Your task to perform on an android device: Open Android settings Image 0: 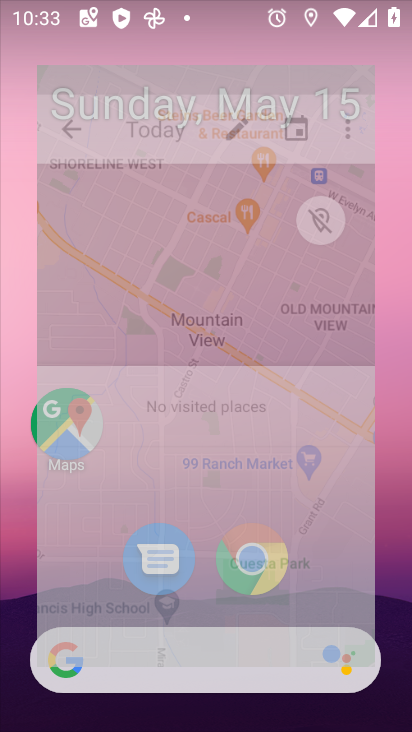
Step 0: drag from (335, 604) to (369, 213)
Your task to perform on an android device: Open Android settings Image 1: 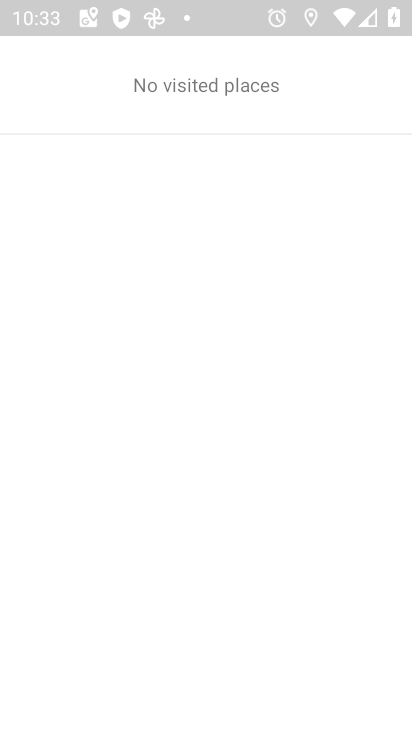
Step 1: press home button
Your task to perform on an android device: Open Android settings Image 2: 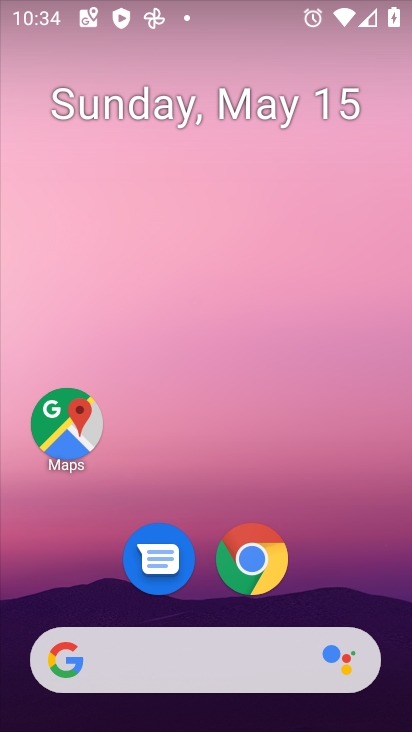
Step 2: drag from (343, 600) to (342, 313)
Your task to perform on an android device: Open Android settings Image 3: 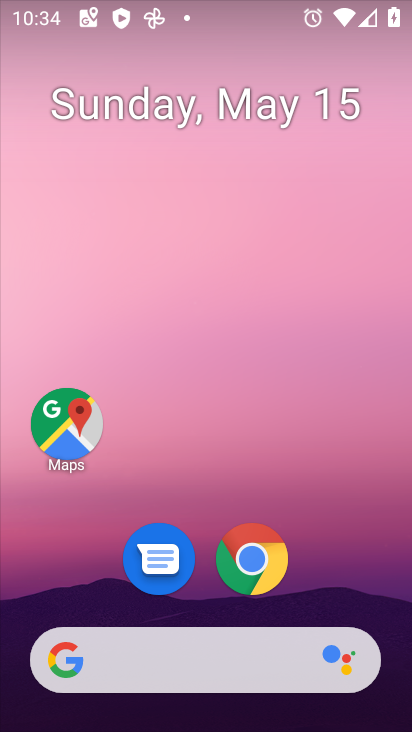
Step 3: drag from (343, 526) to (149, 0)
Your task to perform on an android device: Open Android settings Image 4: 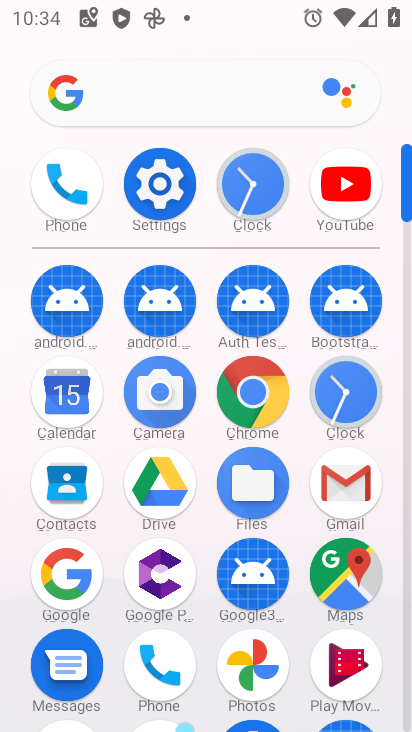
Step 4: click (160, 199)
Your task to perform on an android device: Open Android settings Image 5: 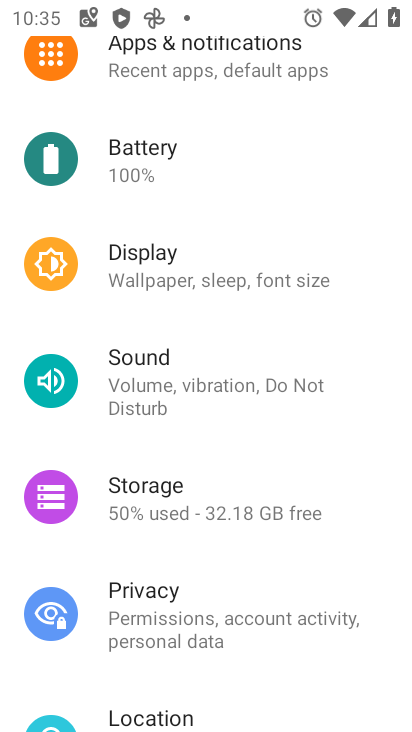
Step 5: task complete